Your task to perform on an android device: Go to CNN.com Image 0: 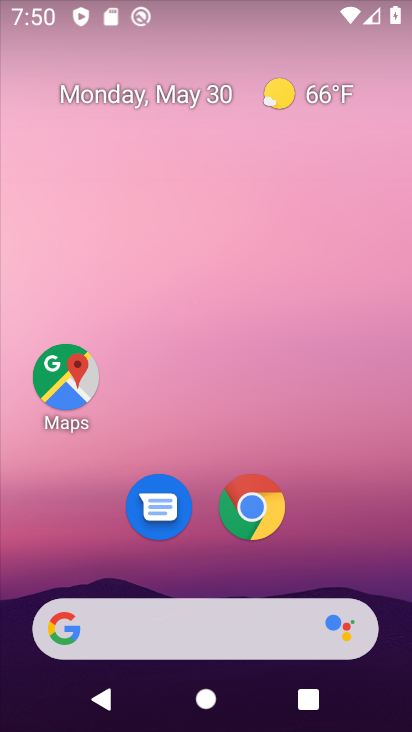
Step 0: click (251, 500)
Your task to perform on an android device: Go to CNN.com Image 1: 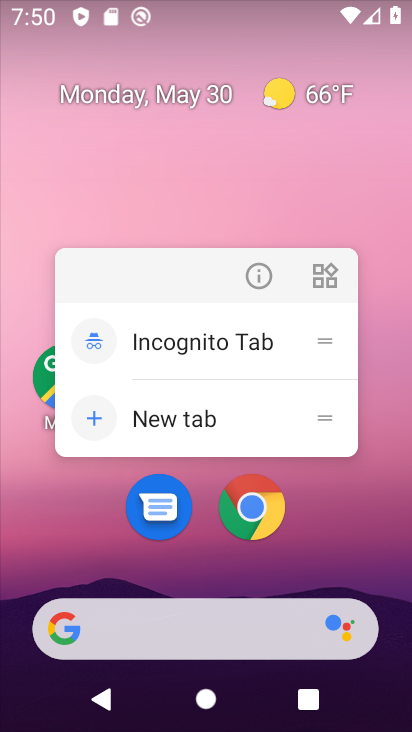
Step 1: click (250, 503)
Your task to perform on an android device: Go to CNN.com Image 2: 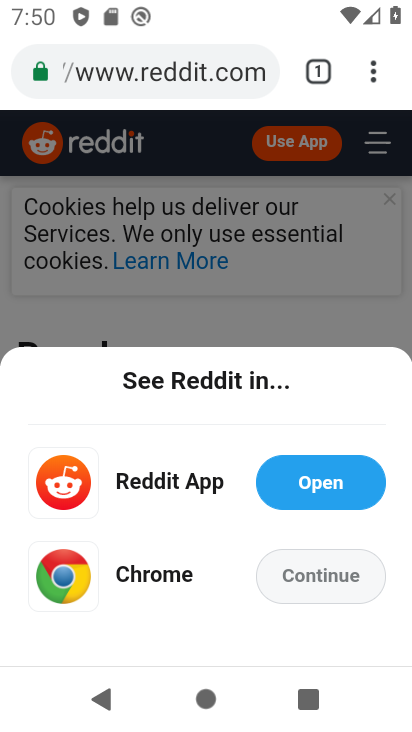
Step 2: click (176, 70)
Your task to perform on an android device: Go to CNN.com Image 3: 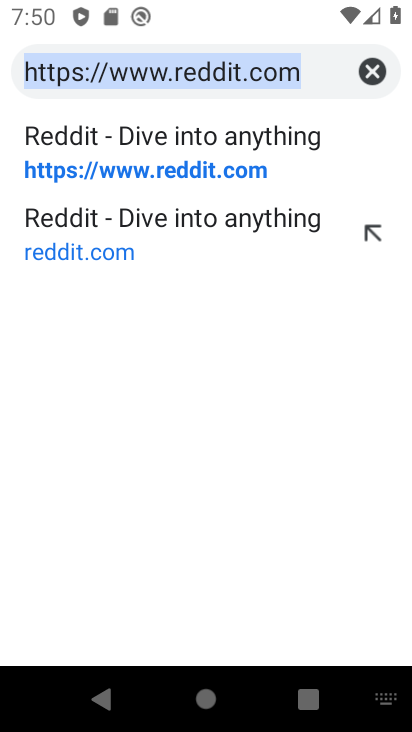
Step 3: type "cnn.com"
Your task to perform on an android device: Go to CNN.com Image 4: 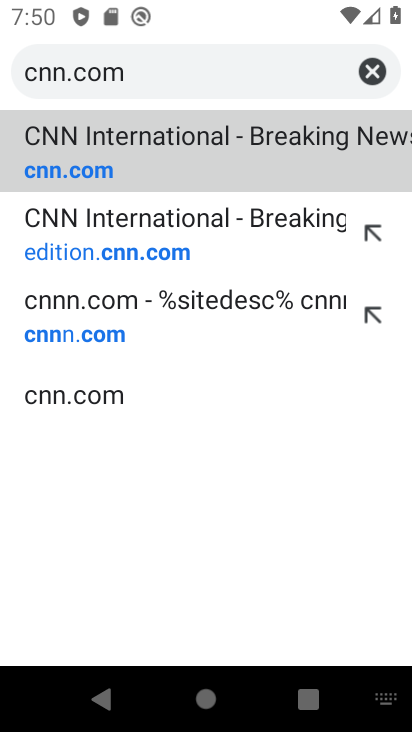
Step 4: click (75, 167)
Your task to perform on an android device: Go to CNN.com Image 5: 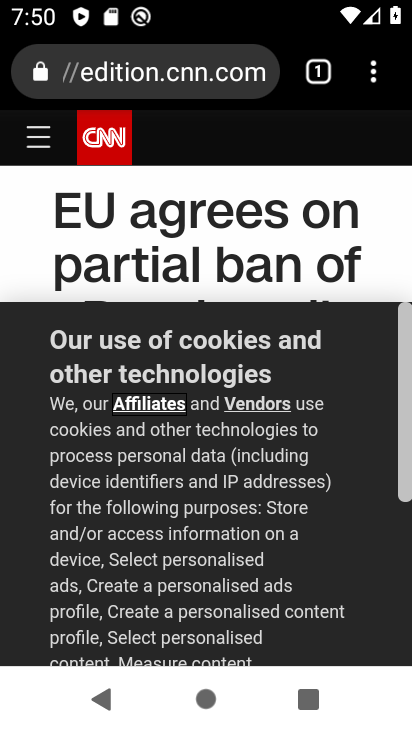
Step 5: task complete